Your task to perform on an android device: Open privacy settings Image 0: 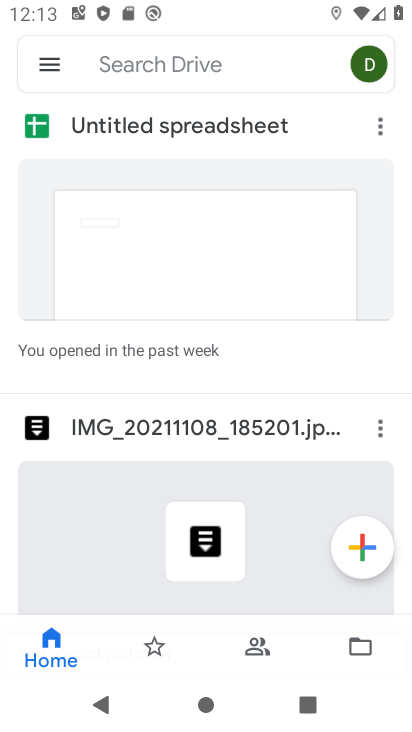
Step 0: press home button
Your task to perform on an android device: Open privacy settings Image 1: 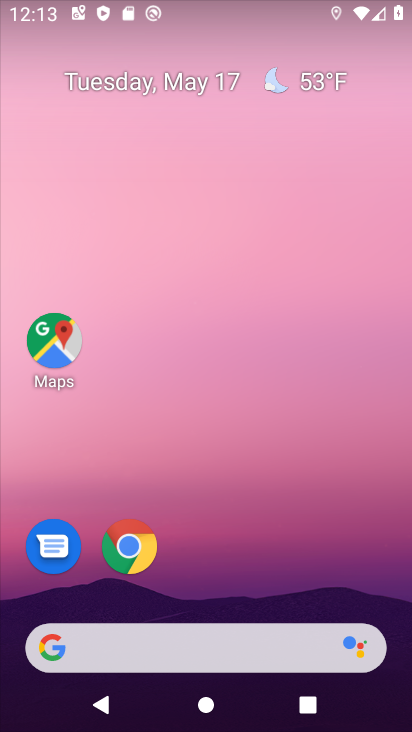
Step 1: click (126, 546)
Your task to perform on an android device: Open privacy settings Image 2: 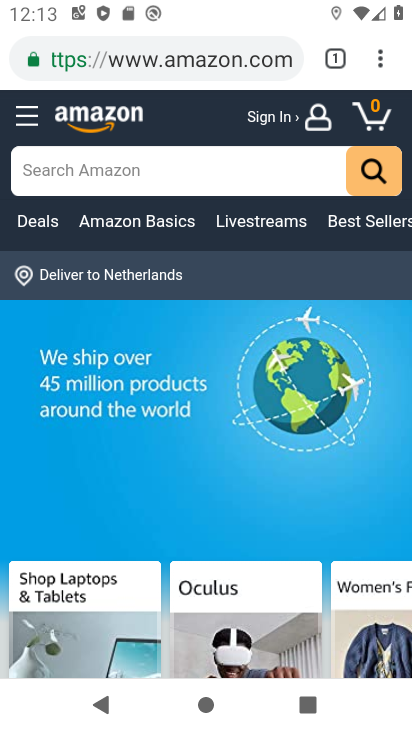
Step 2: click (371, 62)
Your task to perform on an android device: Open privacy settings Image 3: 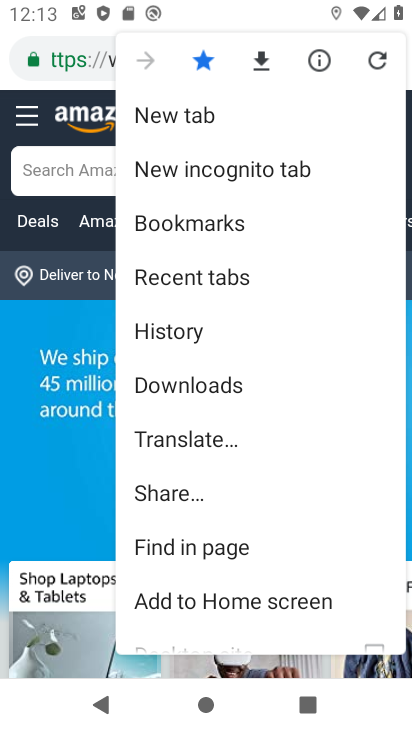
Step 3: drag from (307, 534) to (329, 135)
Your task to perform on an android device: Open privacy settings Image 4: 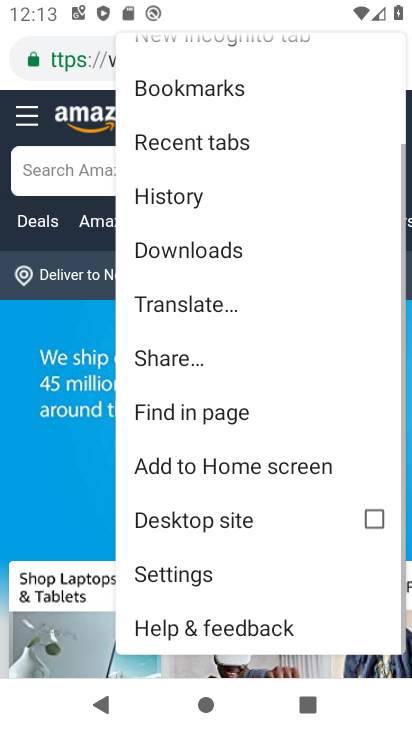
Step 4: click (219, 576)
Your task to perform on an android device: Open privacy settings Image 5: 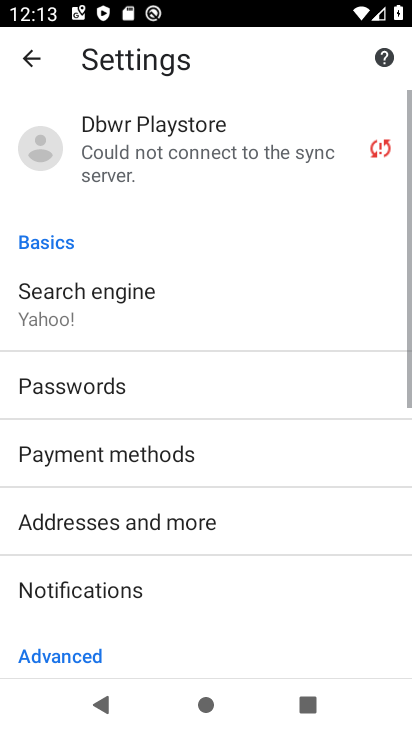
Step 5: drag from (180, 631) to (228, 245)
Your task to perform on an android device: Open privacy settings Image 6: 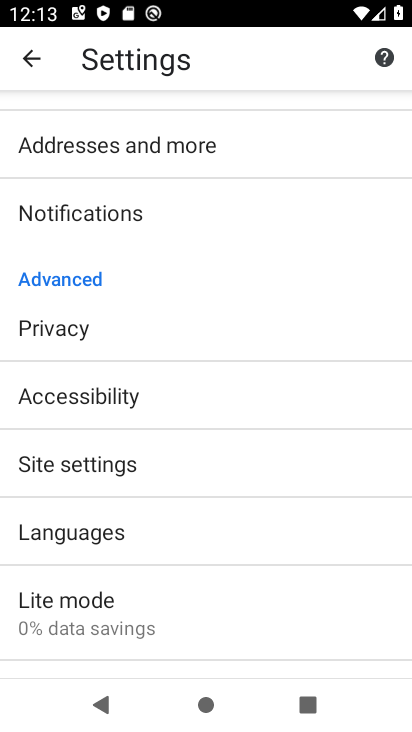
Step 6: click (111, 332)
Your task to perform on an android device: Open privacy settings Image 7: 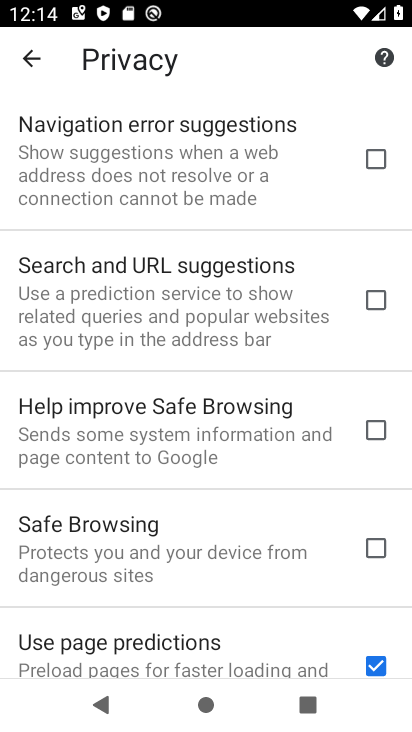
Step 7: task complete